Your task to perform on an android device: delete a single message in the gmail app Image 0: 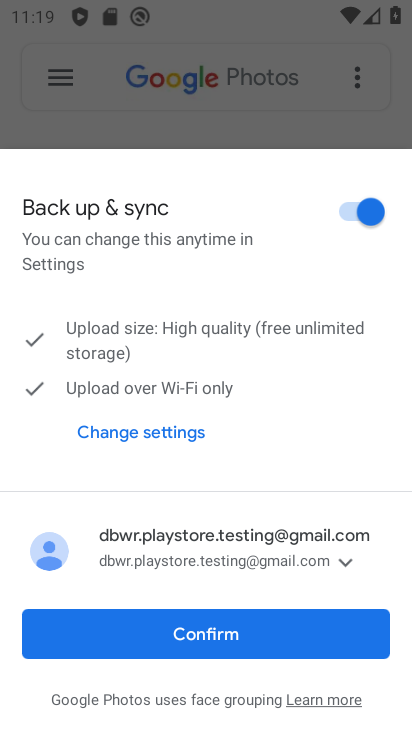
Step 0: press home button
Your task to perform on an android device: delete a single message in the gmail app Image 1: 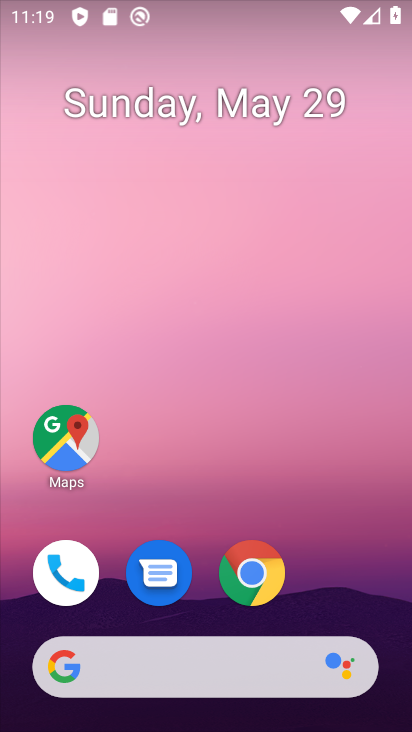
Step 1: drag from (372, 530) to (398, 105)
Your task to perform on an android device: delete a single message in the gmail app Image 2: 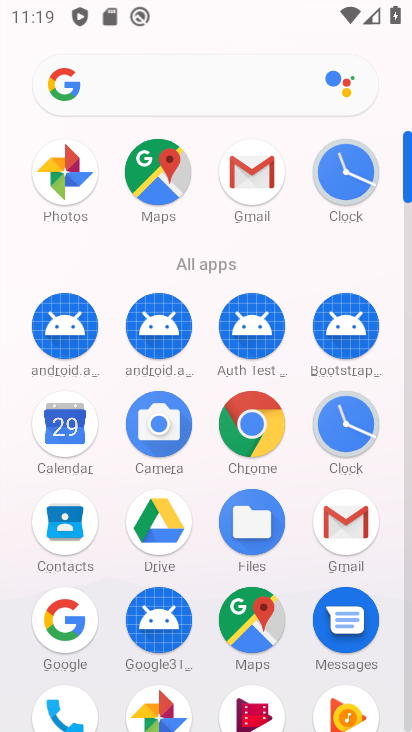
Step 2: click (267, 174)
Your task to perform on an android device: delete a single message in the gmail app Image 3: 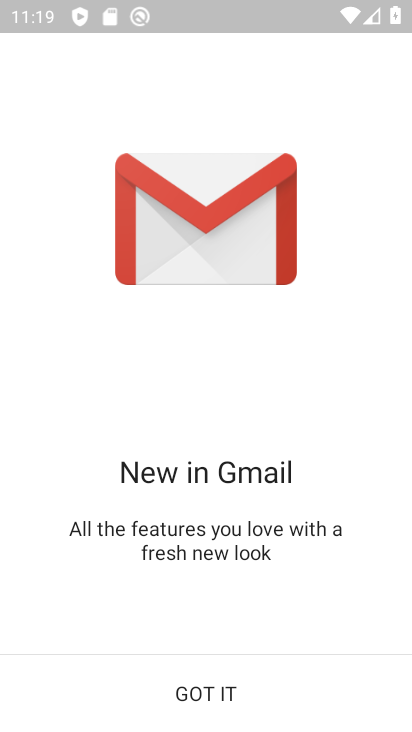
Step 3: click (210, 697)
Your task to perform on an android device: delete a single message in the gmail app Image 4: 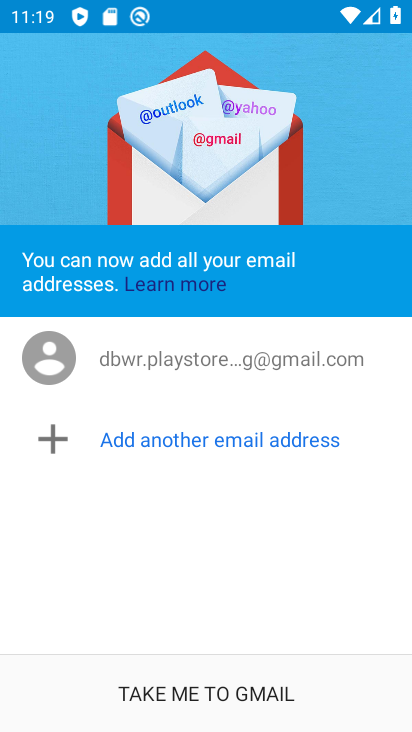
Step 4: click (245, 697)
Your task to perform on an android device: delete a single message in the gmail app Image 5: 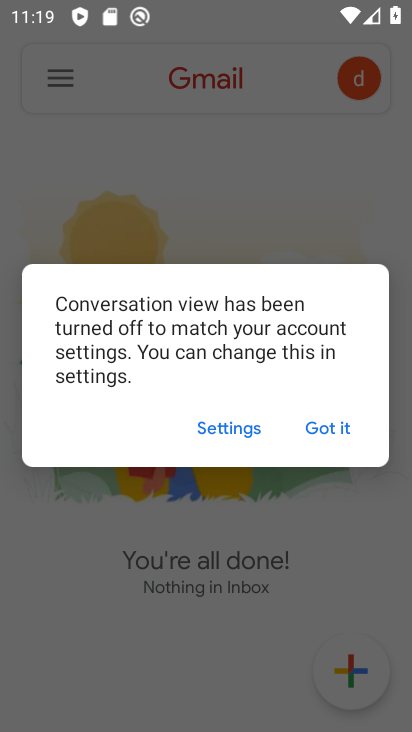
Step 5: click (343, 429)
Your task to perform on an android device: delete a single message in the gmail app Image 6: 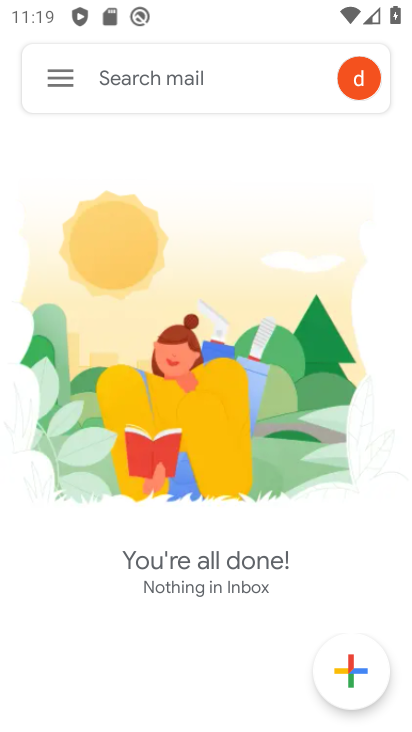
Step 6: click (56, 80)
Your task to perform on an android device: delete a single message in the gmail app Image 7: 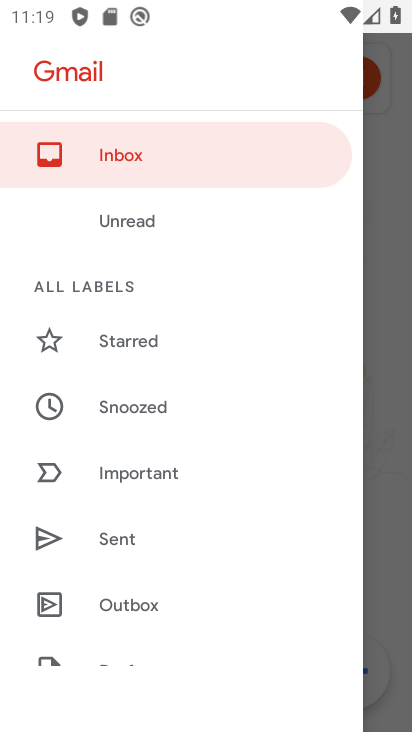
Step 7: drag from (294, 645) to (267, 363)
Your task to perform on an android device: delete a single message in the gmail app Image 8: 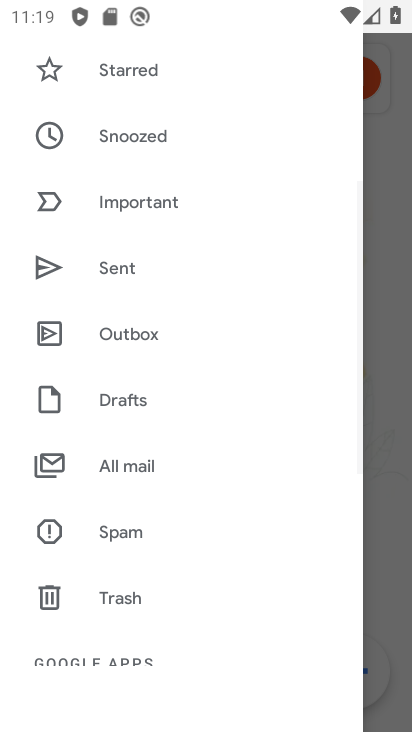
Step 8: click (127, 467)
Your task to perform on an android device: delete a single message in the gmail app Image 9: 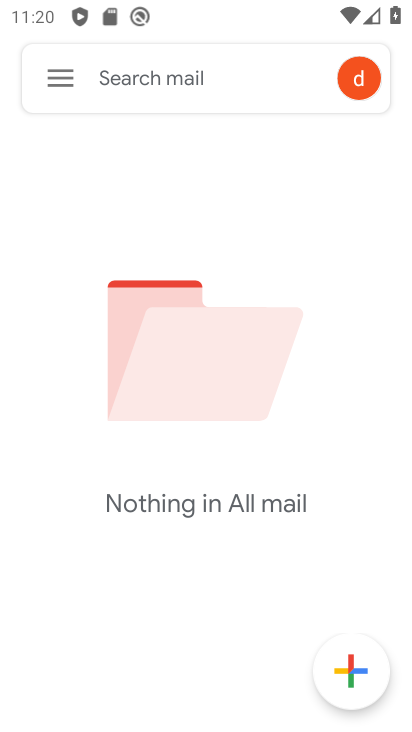
Step 9: task complete